Your task to perform on an android device: Show me popular games on the Play Store Image 0: 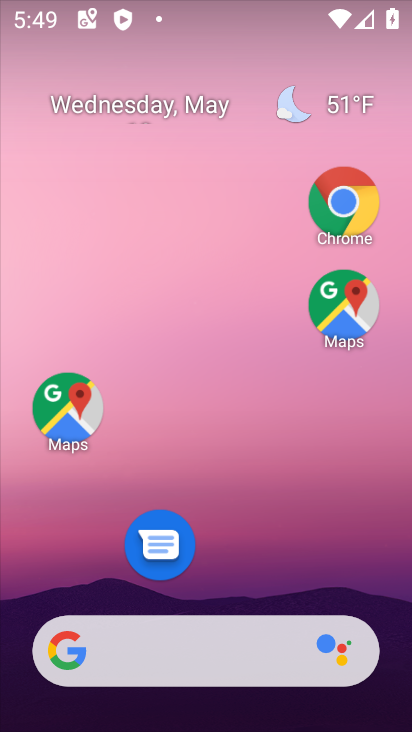
Step 0: drag from (271, 563) to (207, 67)
Your task to perform on an android device: Show me popular games on the Play Store Image 1: 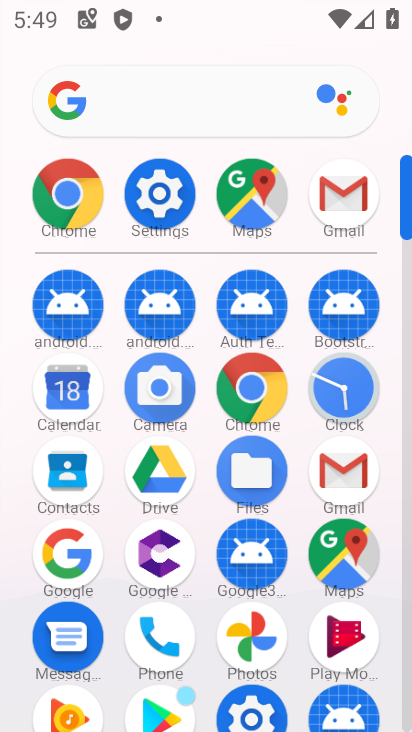
Step 1: drag from (199, 685) to (223, 271)
Your task to perform on an android device: Show me popular games on the Play Store Image 2: 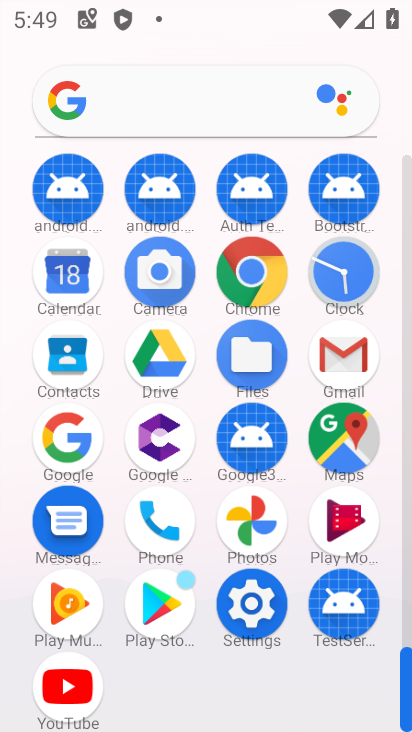
Step 2: click (161, 615)
Your task to perform on an android device: Show me popular games on the Play Store Image 3: 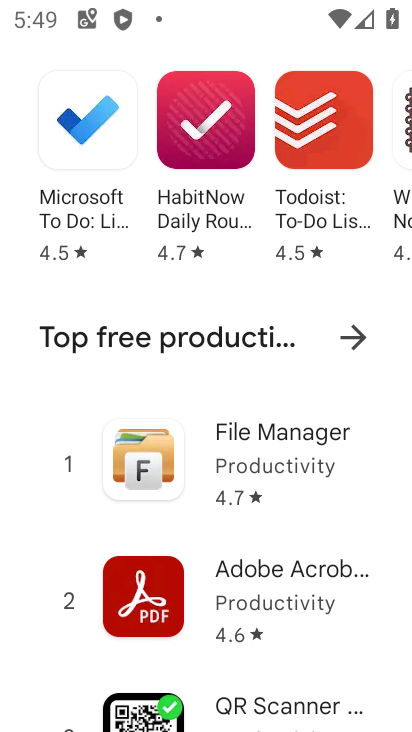
Step 3: press back button
Your task to perform on an android device: Show me popular games on the Play Store Image 4: 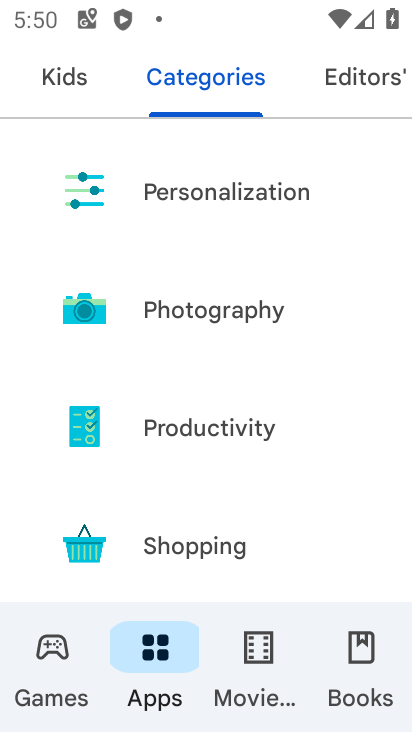
Step 4: click (68, 669)
Your task to perform on an android device: Show me popular games on the Play Store Image 5: 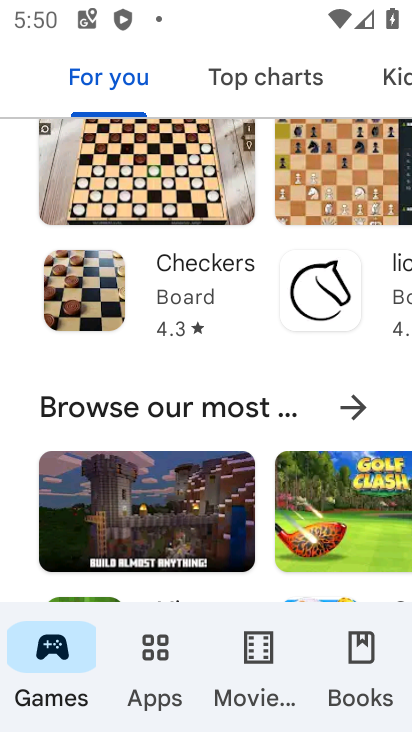
Step 5: click (215, 177)
Your task to perform on an android device: Show me popular games on the Play Store Image 6: 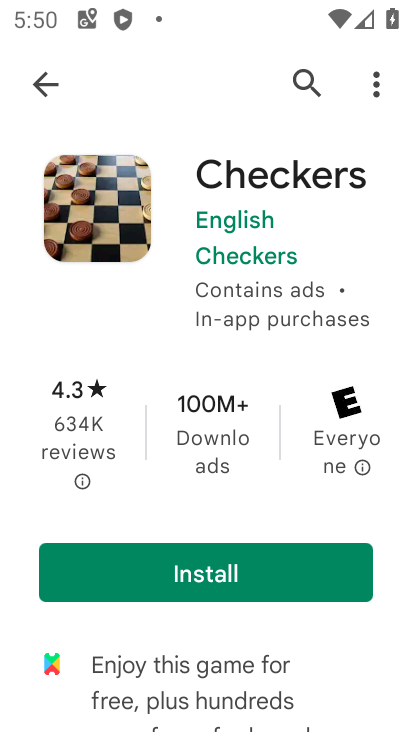
Step 6: task complete